Your task to perform on an android device: Open calendar and show me the third week of next month Image 0: 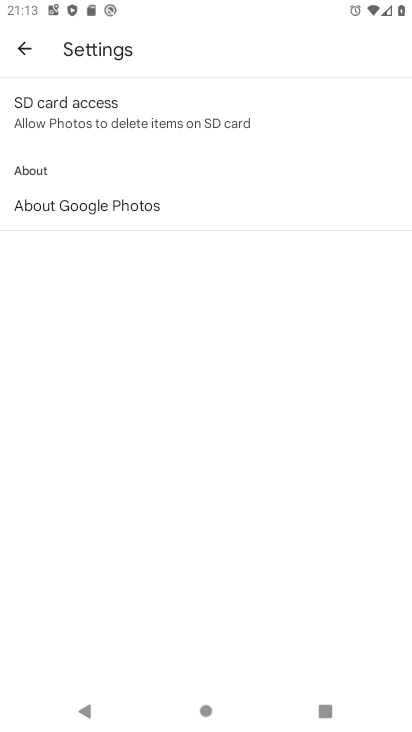
Step 0: press home button
Your task to perform on an android device: Open calendar and show me the third week of next month Image 1: 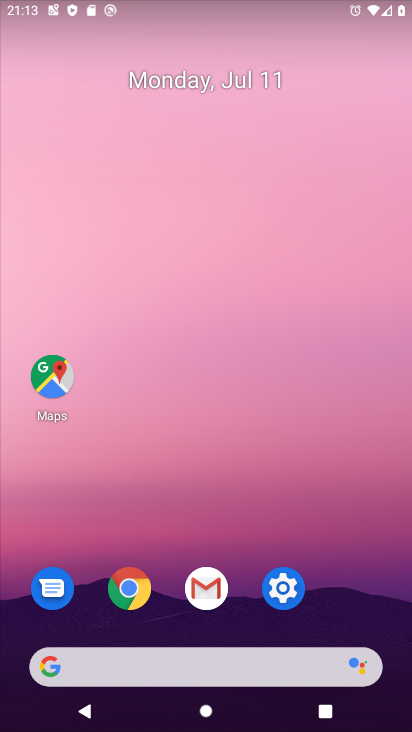
Step 1: drag from (231, 699) to (230, 85)
Your task to perform on an android device: Open calendar and show me the third week of next month Image 2: 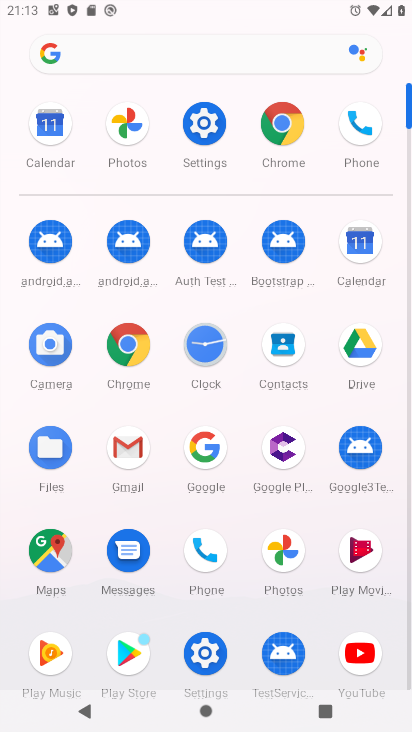
Step 2: click (282, 350)
Your task to perform on an android device: Open calendar and show me the third week of next month Image 3: 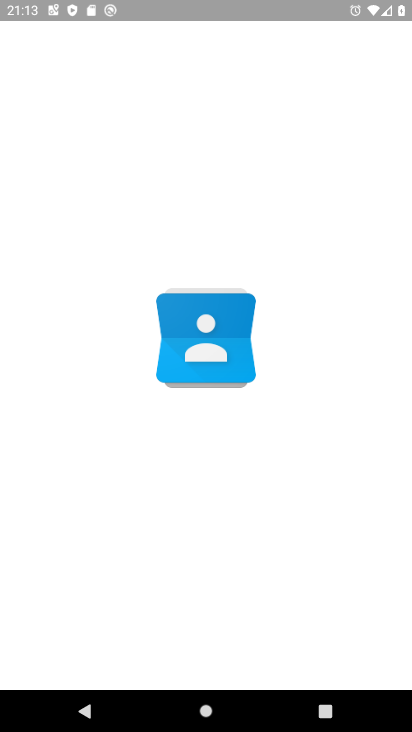
Step 3: press home button
Your task to perform on an android device: Open calendar and show me the third week of next month Image 4: 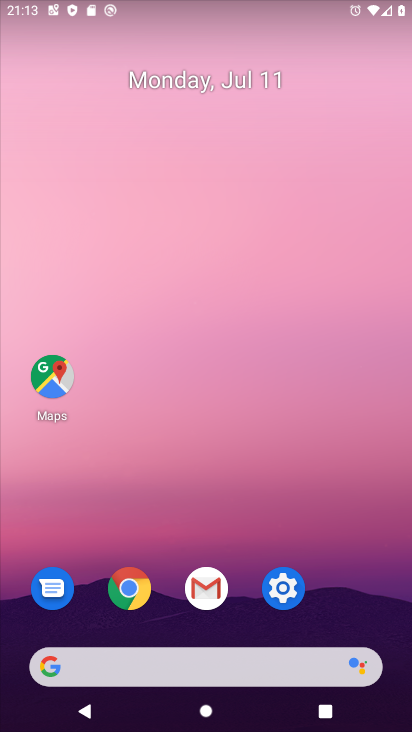
Step 4: drag from (259, 678) to (290, 203)
Your task to perform on an android device: Open calendar and show me the third week of next month Image 5: 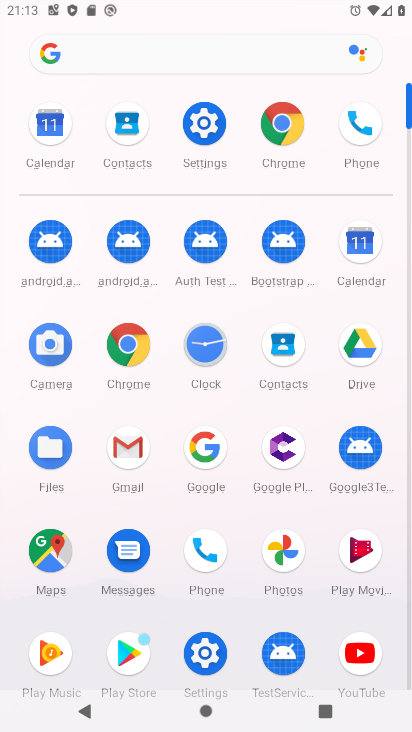
Step 5: click (363, 260)
Your task to perform on an android device: Open calendar and show me the third week of next month Image 6: 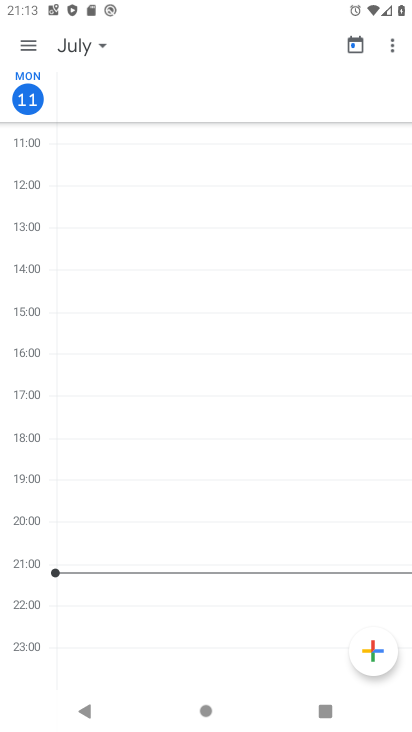
Step 6: click (25, 53)
Your task to perform on an android device: Open calendar and show me the third week of next month Image 7: 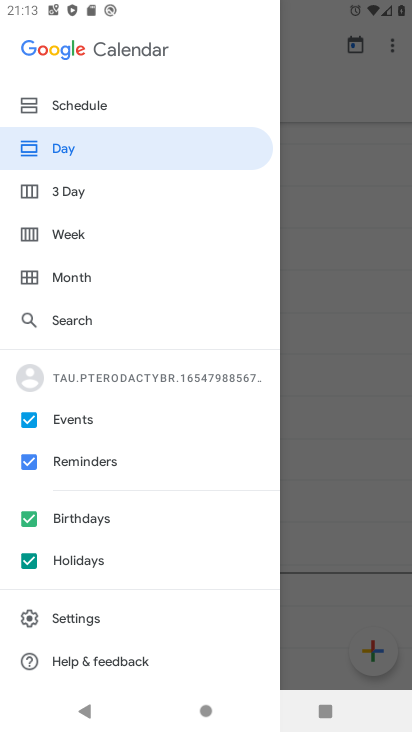
Step 7: click (90, 272)
Your task to perform on an android device: Open calendar and show me the third week of next month Image 8: 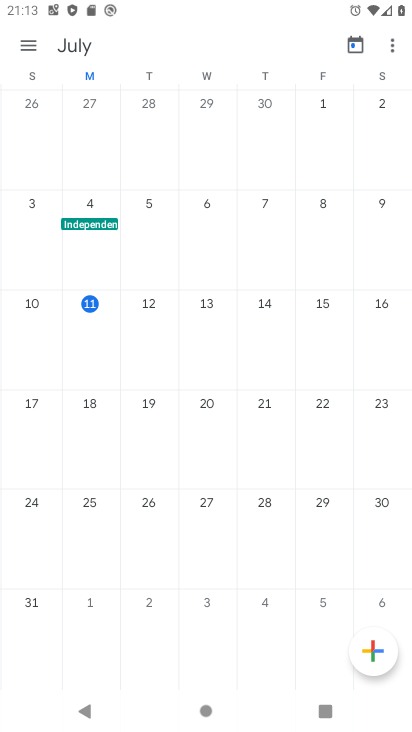
Step 8: drag from (333, 365) to (0, 309)
Your task to perform on an android device: Open calendar and show me the third week of next month Image 9: 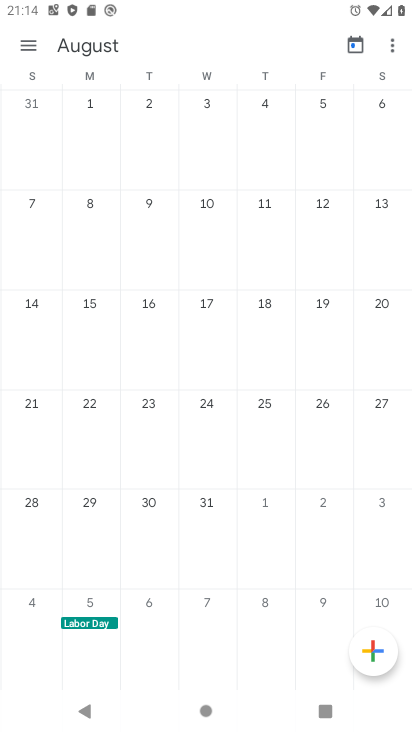
Step 9: click (82, 345)
Your task to perform on an android device: Open calendar and show me the third week of next month Image 10: 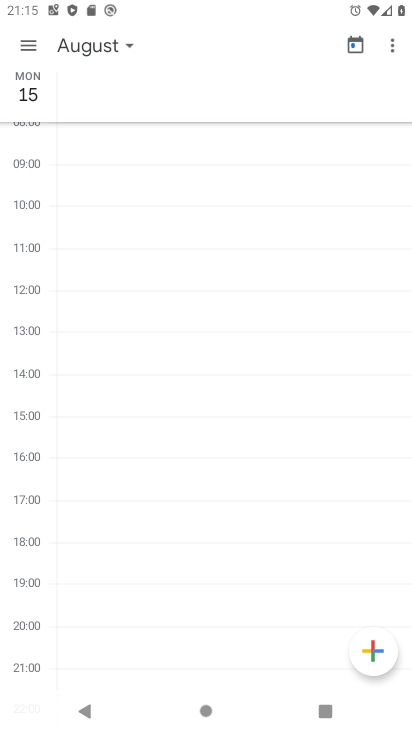
Step 10: task complete